Your task to perform on an android device: Open calendar and show me the fourth week of next month Image 0: 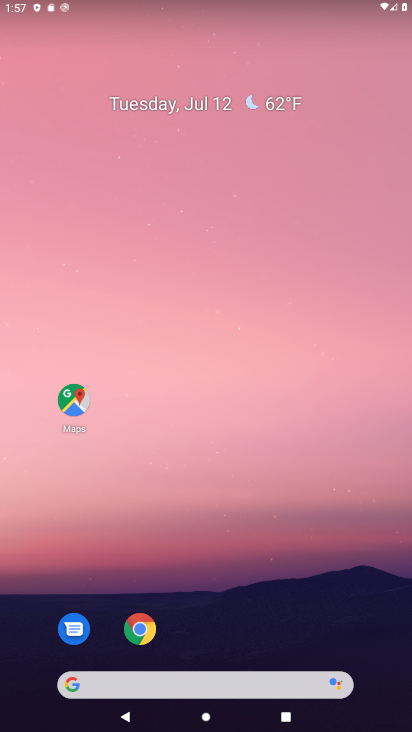
Step 0: press home button
Your task to perform on an android device: Open calendar and show me the fourth week of next month Image 1: 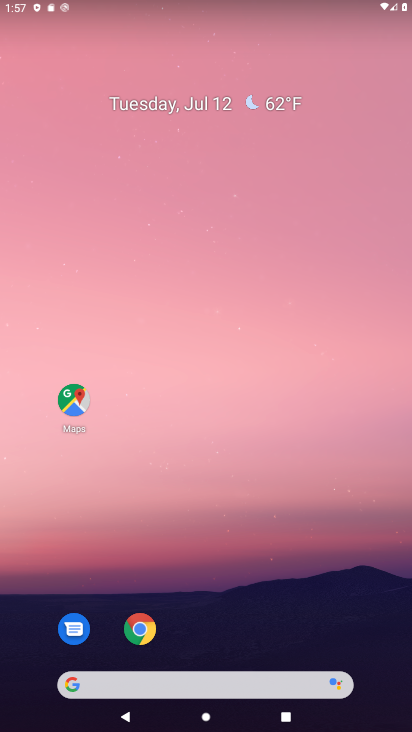
Step 1: drag from (194, 650) to (229, 0)
Your task to perform on an android device: Open calendar and show me the fourth week of next month Image 2: 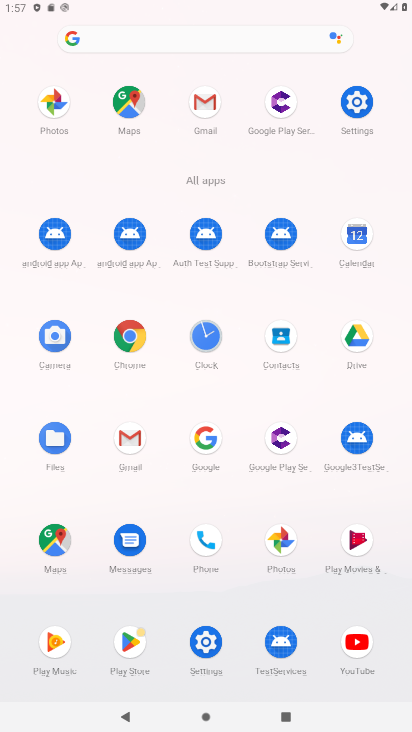
Step 2: click (356, 232)
Your task to perform on an android device: Open calendar and show me the fourth week of next month Image 3: 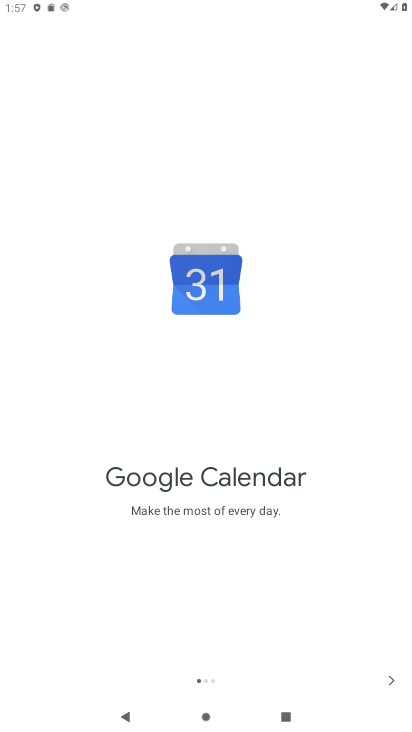
Step 3: click (384, 674)
Your task to perform on an android device: Open calendar and show me the fourth week of next month Image 4: 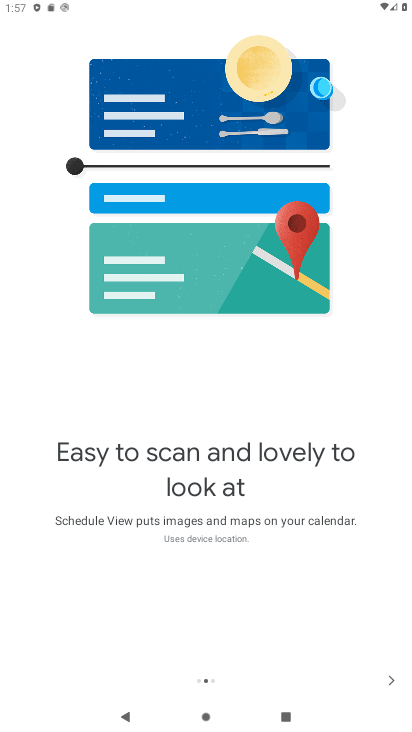
Step 4: click (389, 679)
Your task to perform on an android device: Open calendar and show me the fourth week of next month Image 5: 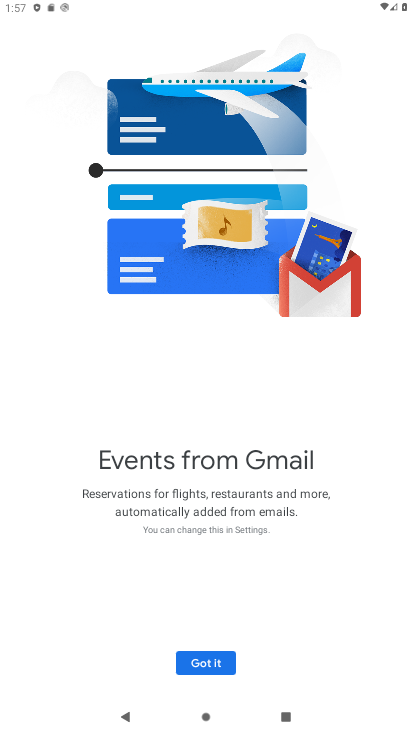
Step 5: click (208, 658)
Your task to perform on an android device: Open calendar and show me the fourth week of next month Image 6: 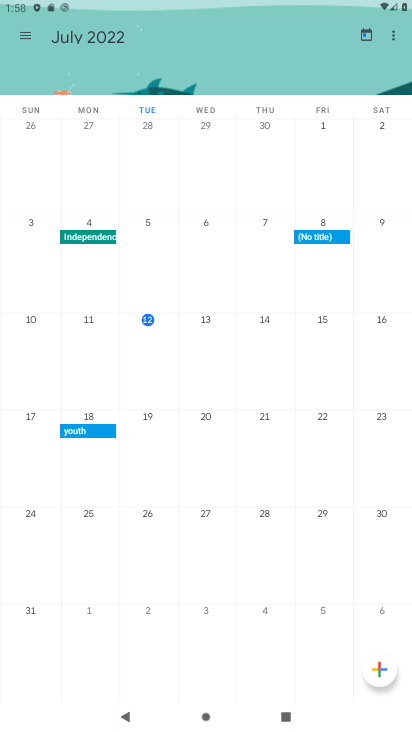
Step 6: drag from (342, 475) to (19, 457)
Your task to perform on an android device: Open calendar and show me the fourth week of next month Image 7: 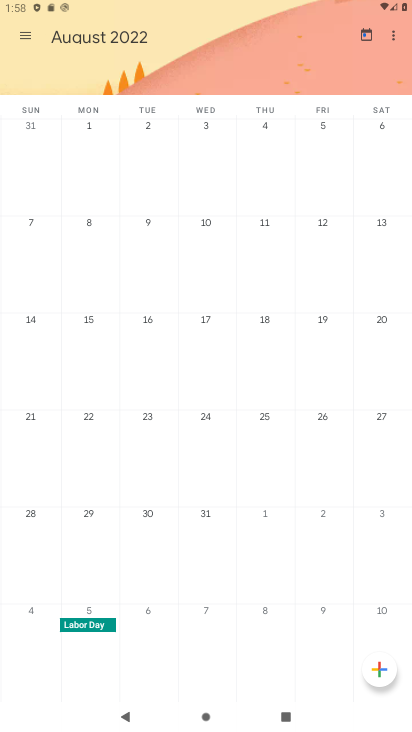
Step 7: click (25, 431)
Your task to perform on an android device: Open calendar and show me the fourth week of next month Image 8: 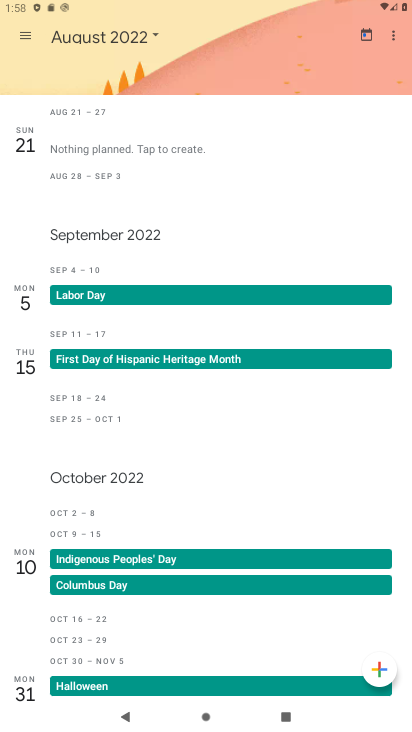
Step 8: task complete